Your task to perform on an android device: add a contact Image 0: 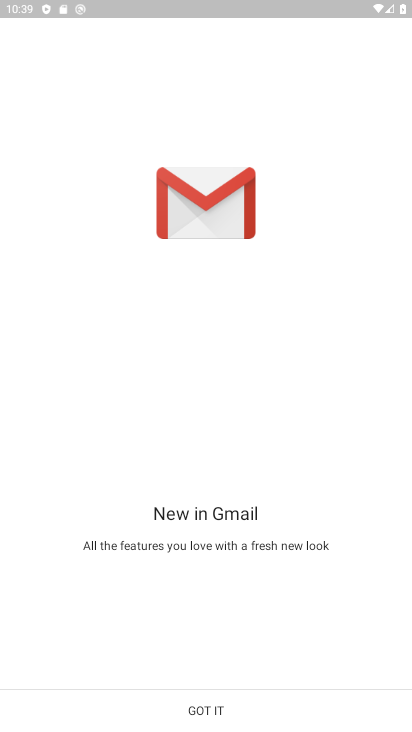
Step 0: press home button
Your task to perform on an android device: add a contact Image 1: 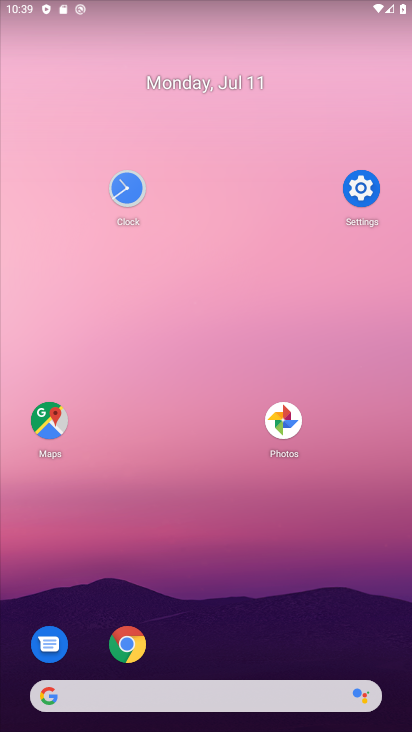
Step 1: drag from (274, 658) to (235, 197)
Your task to perform on an android device: add a contact Image 2: 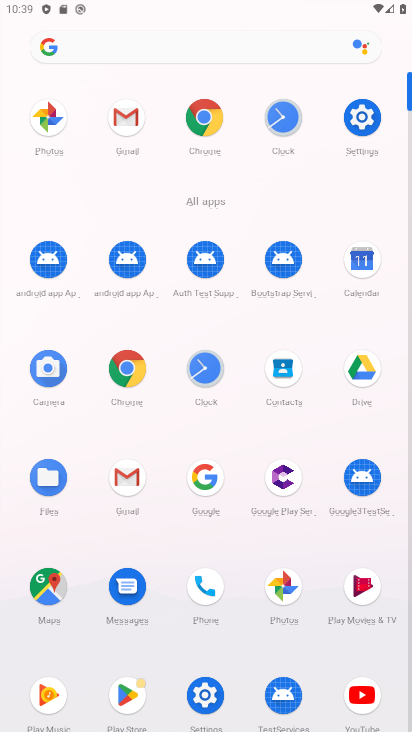
Step 2: click (294, 372)
Your task to perform on an android device: add a contact Image 3: 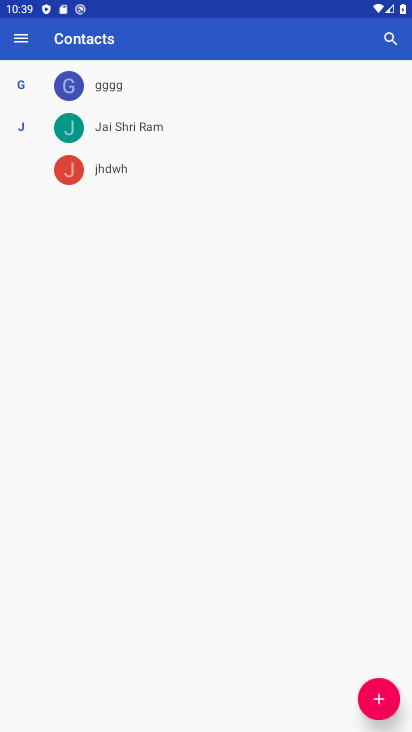
Step 3: click (373, 699)
Your task to perform on an android device: add a contact Image 4: 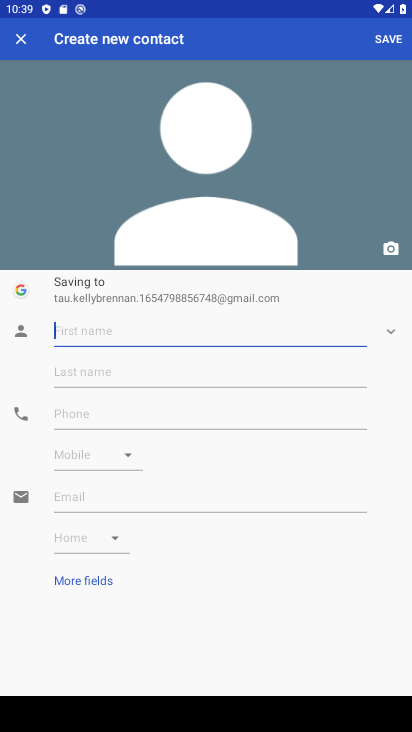
Step 4: type "sdsdsd"
Your task to perform on an android device: add a contact Image 5: 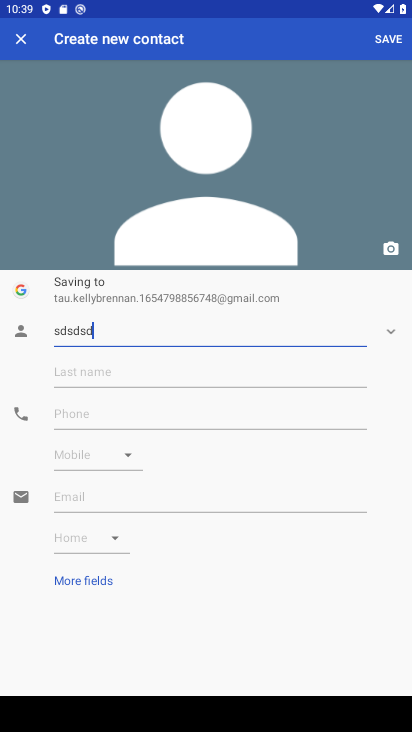
Step 5: click (183, 424)
Your task to perform on an android device: add a contact Image 6: 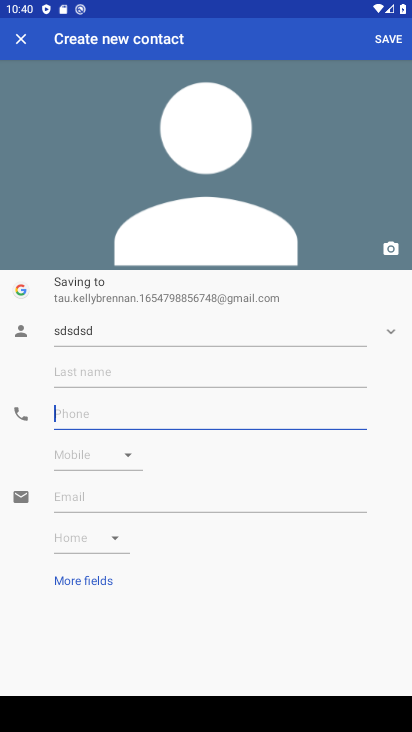
Step 6: type "223433446"
Your task to perform on an android device: add a contact Image 7: 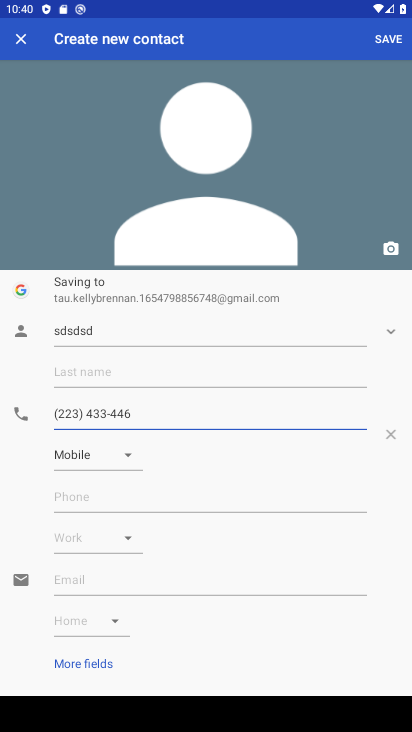
Step 7: click (385, 49)
Your task to perform on an android device: add a contact Image 8: 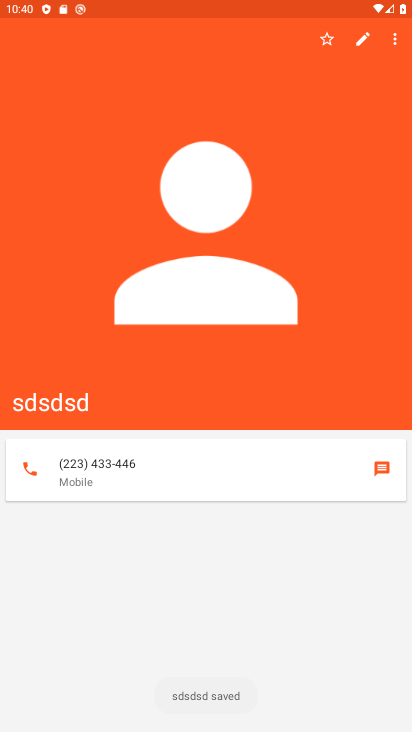
Step 8: task complete